Your task to perform on an android device: Go to Reddit.com Image 0: 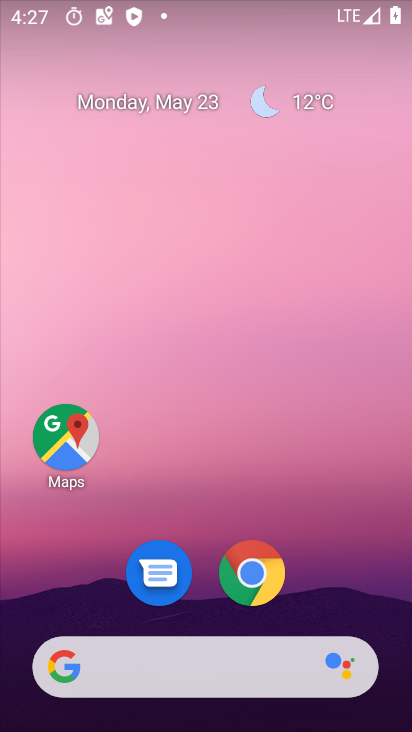
Step 0: click (260, 576)
Your task to perform on an android device: Go to Reddit.com Image 1: 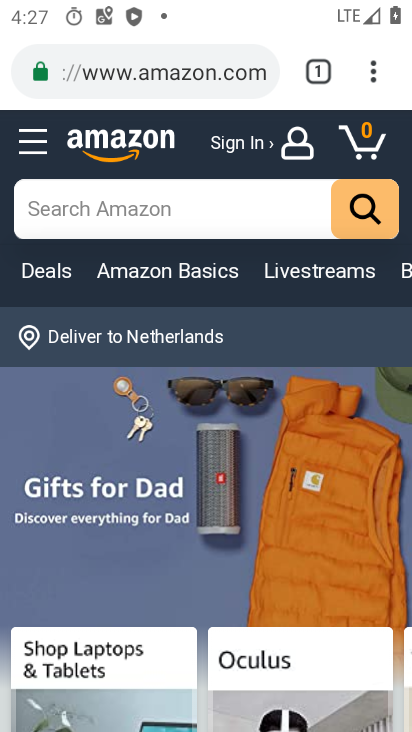
Step 1: click (164, 69)
Your task to perform on an android device: Go to Reddit.com Image 2: 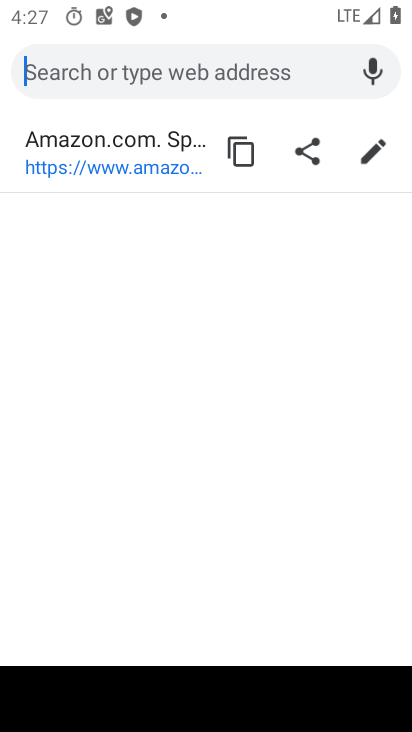
Step 2: type "Reddit.com"
Your task to perform on an android device: Go to Reddit.com Image 3: 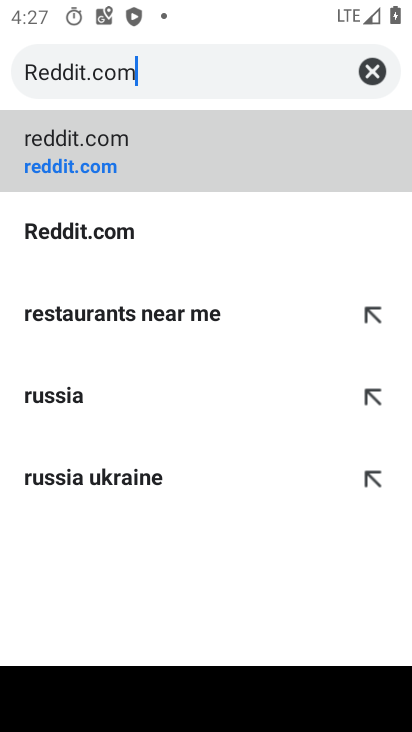
Step 3: type ""
Your task to perform on an android device: Go to Reddit.com Image 4: 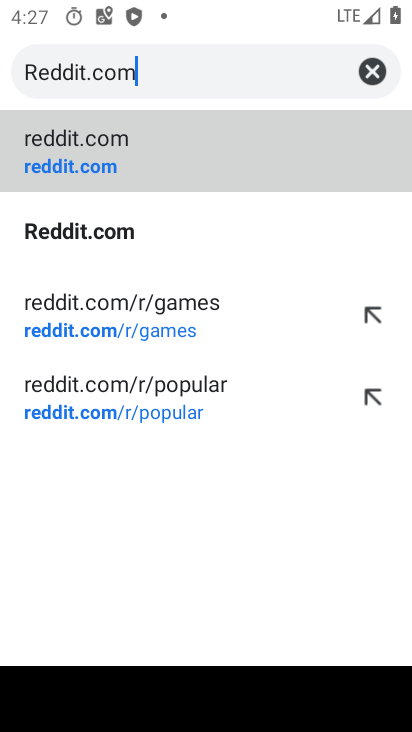
Step 4: click (88, 238)
Your task to perform on an android device: Go to Reddit.com Image 5: 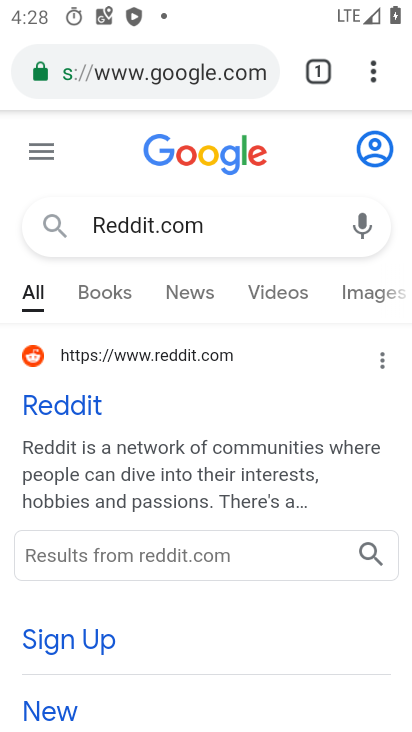
Step 5: click (57, 404)
Your task to perform on an android device: Go to Reddit.com Image 6: 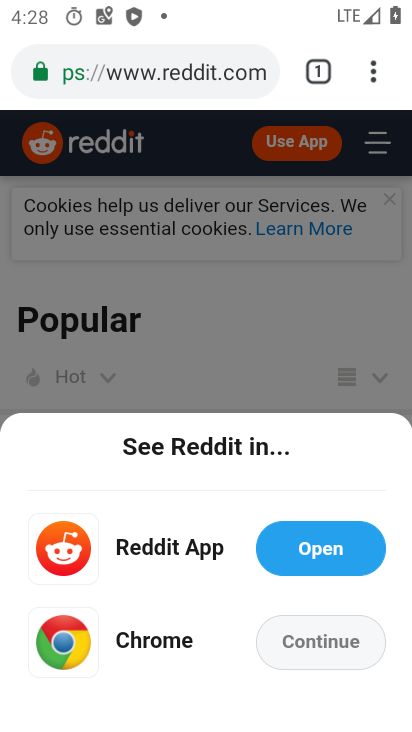
Step 6: task complete